Your task to perform on an android device: Open accessibility settings Image 0: 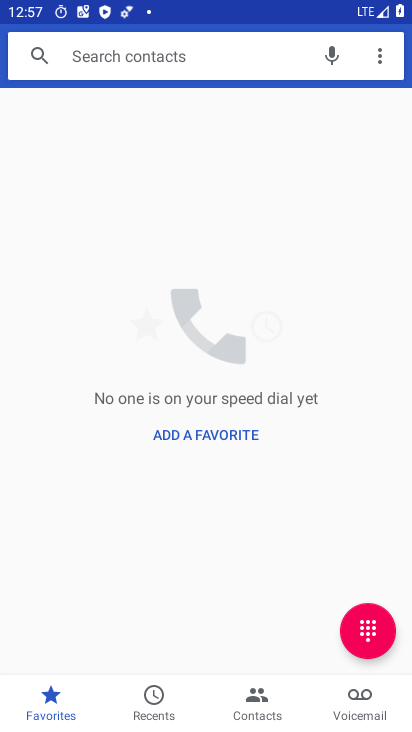
Step 0: press home button
Your task to perform on an android device: Open accessibility settings Image 1: 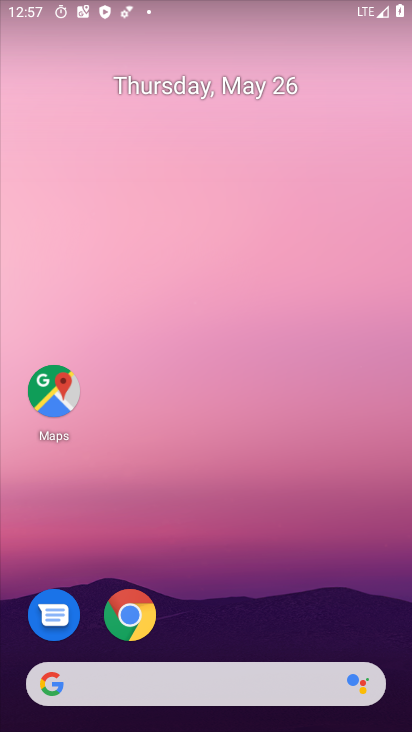
Step 1: drag from (245, 619) to (172, 201)
Your task to perform on an android device: Open accessibility settings Image 2: 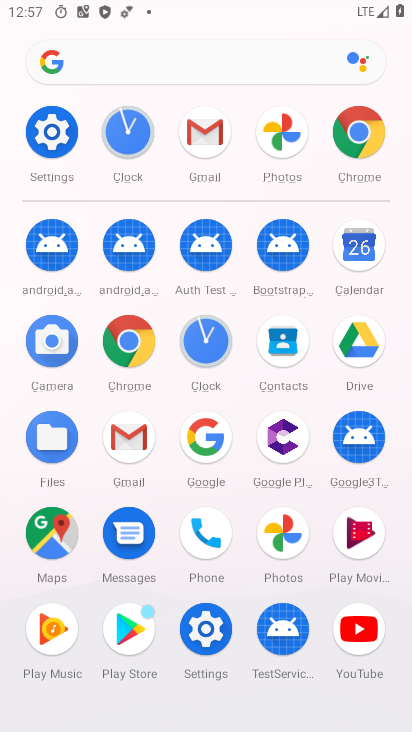
Step 2: click (47, 133)
Your task to perform on an android device: Open accessibility settings Image 3: 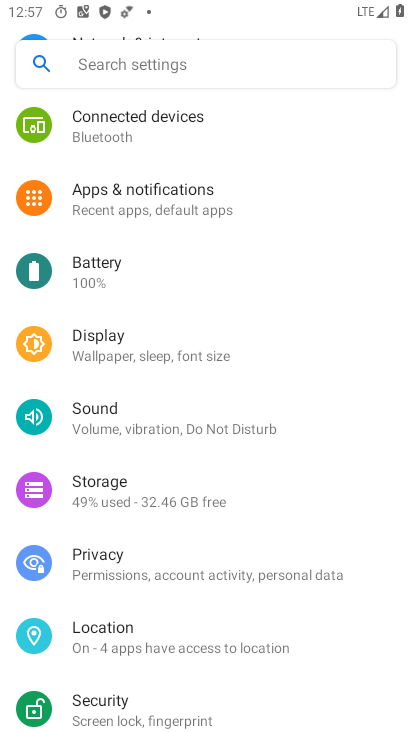
Step 3: drag from (239, 669) to (197, 326)
Your task to perform on an android device: Open accessibility settings Image 4: 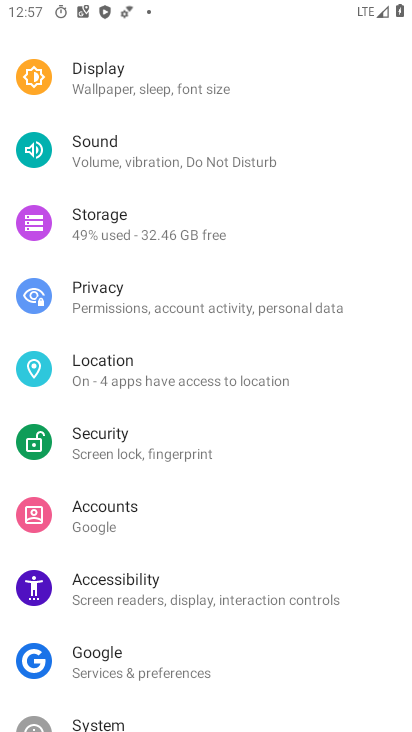
Step 4: click (166, 577)
Your task to perform on an android device: Open accessibility settings Image 5: 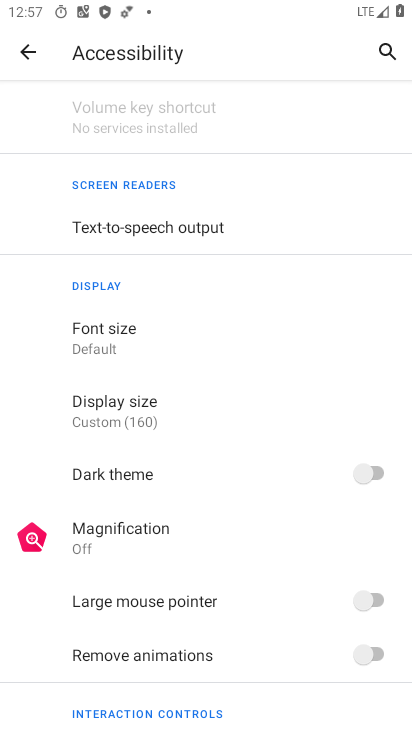
Step 5: task complete